Your task to perform on an android device: check google app version Image 0: 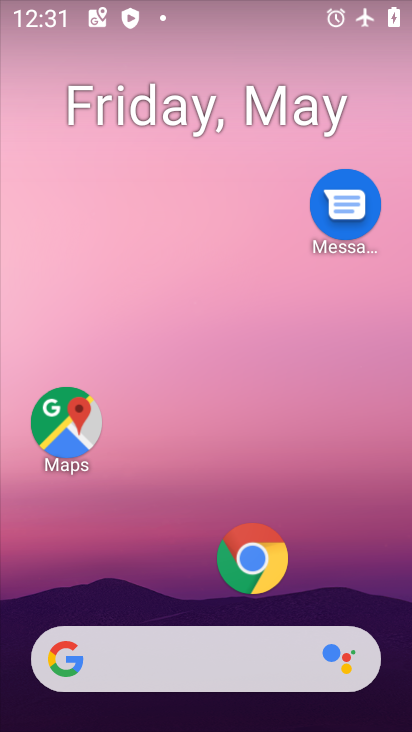
Step 0: drag from (266, 644) to (225, 158)
Your task to perform on an android device: check google app version Image 1: 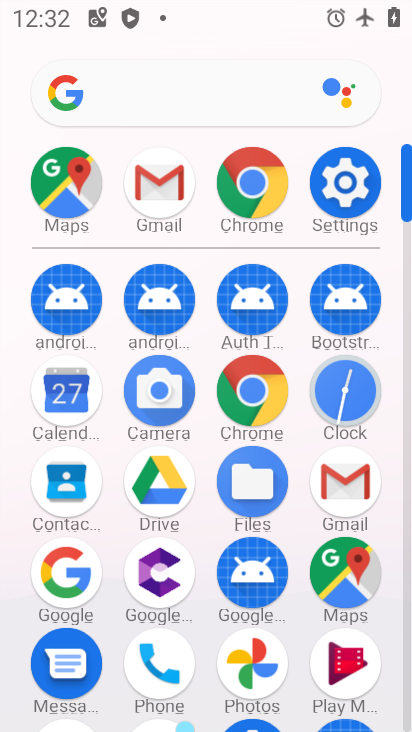
Step 1: click (58, 582)
Your task to perform on an android device: check google app version Image 2: 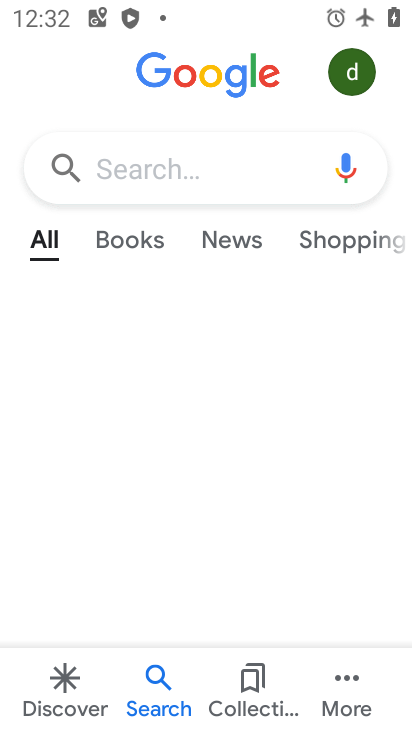
Step 2: click (354, 701)
Your task to perform on an android device: check google app version Image 3: 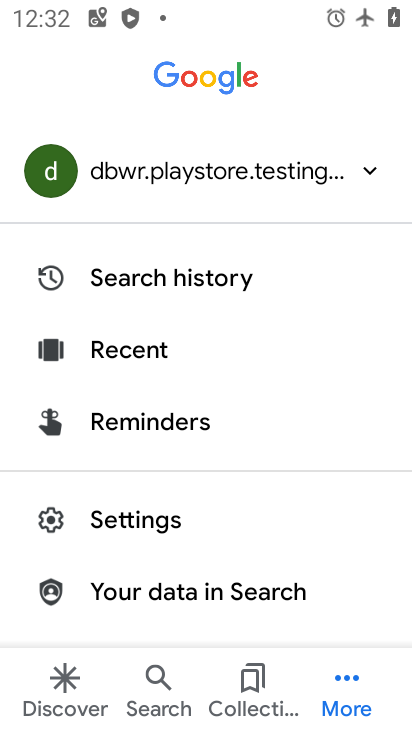
Step 3: drag from (186, 550) to (187, 484)
Your task to perform on an android device: check google app version Image 4: 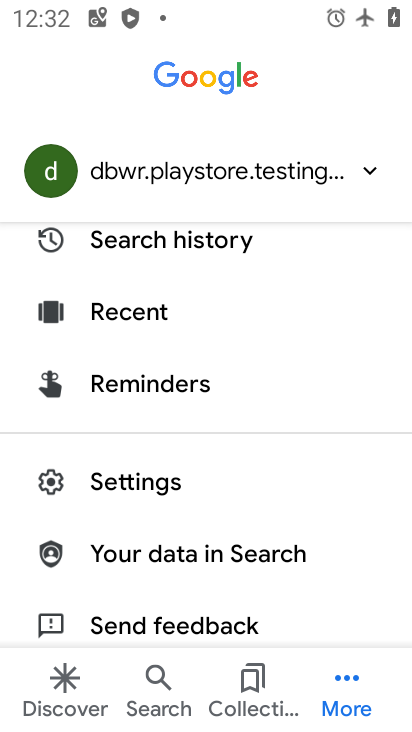
Step 4: click (113, 478)
Your task to perform on an android device: check google app version Image 5: 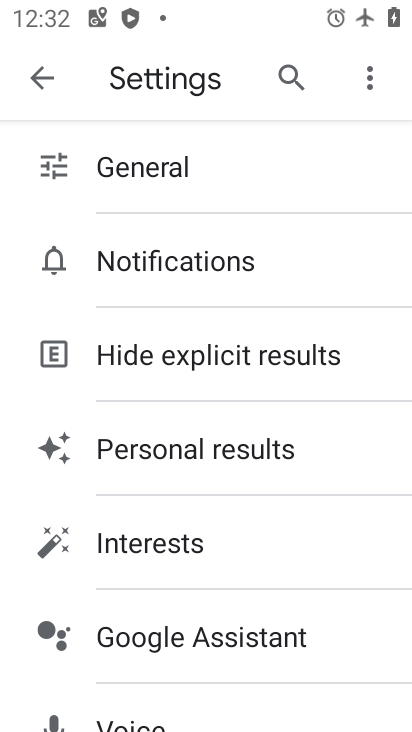
Step 5: drag from (166, 576) to (176, 339)
Your task to perform on an android device: check google app version Image 6: 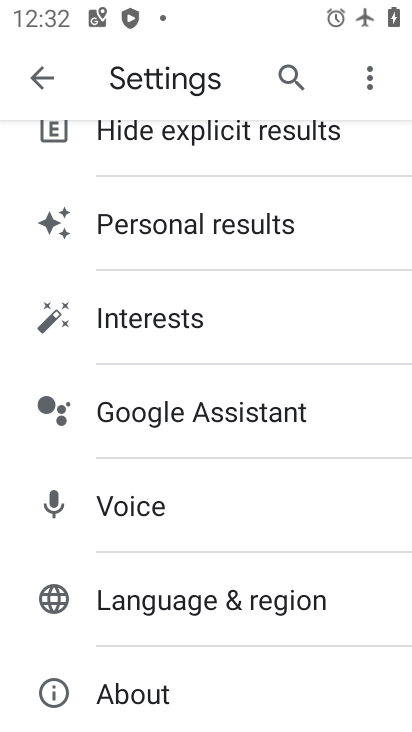
Step 6: click (197, 687)
Your task to perform on an android device: check google app version Image 7: 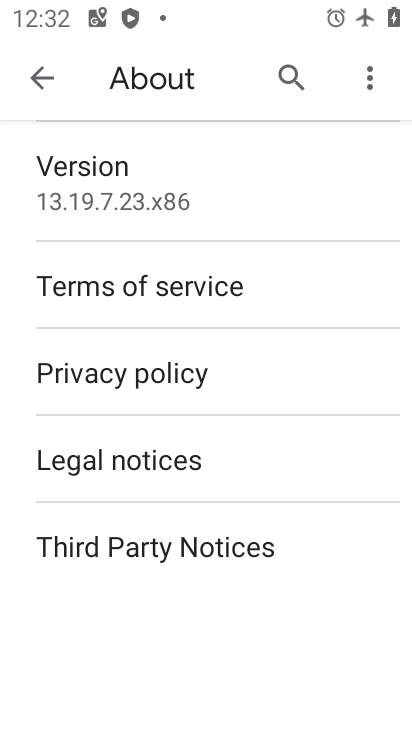
Step 7: click (203, 186)
Your task to perform on an android device: check google app version Image 8: 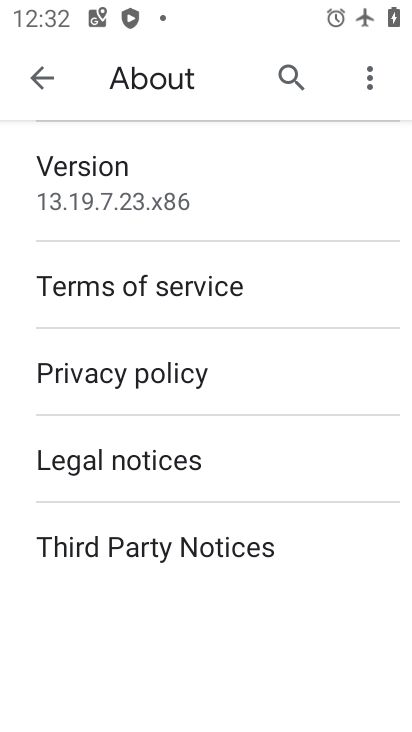
Step 8: task complete